Your task to perform on an android device: Open settings Image 0: 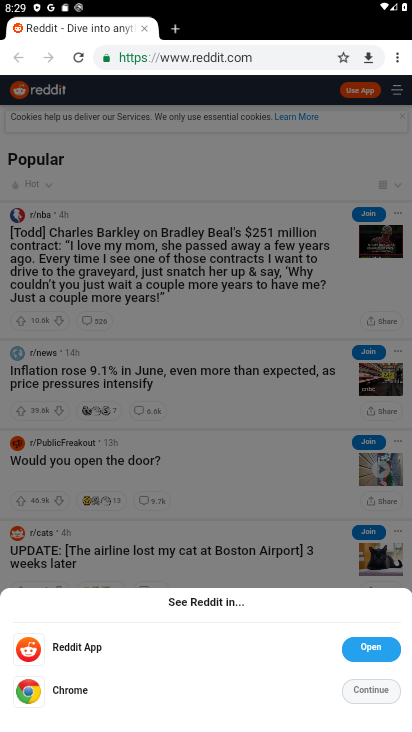
Step 0: press home button
Your task to perform on an android device: Open settings Image 1: 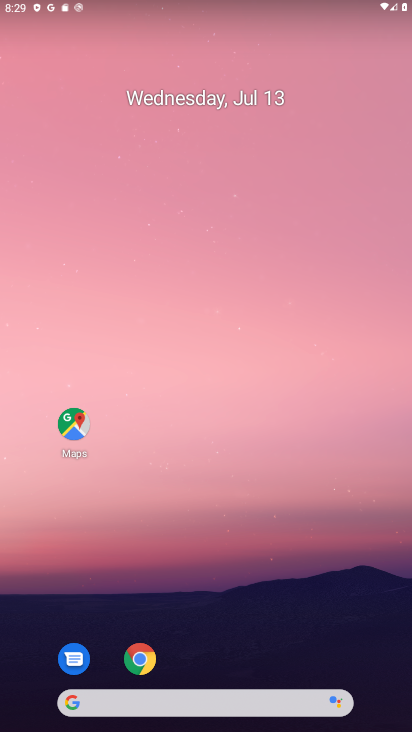
Step 1: drag from (286, 662) to (282, 234)
Your task to perform on an android device: Open settings Image 2: 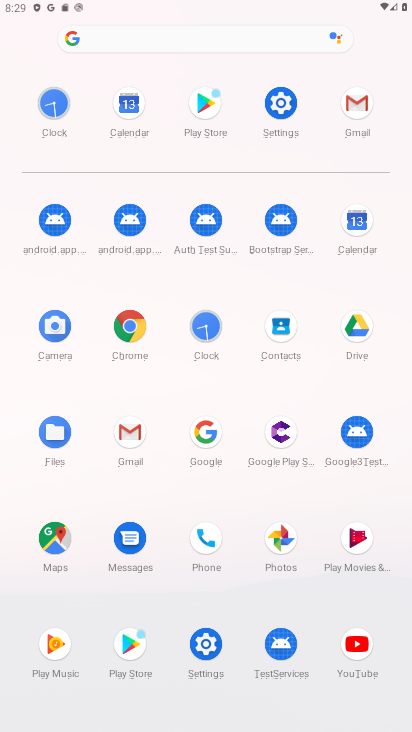
Step 2: click (270, 110)
Your task to perform on an android device: Open settings Image 3: 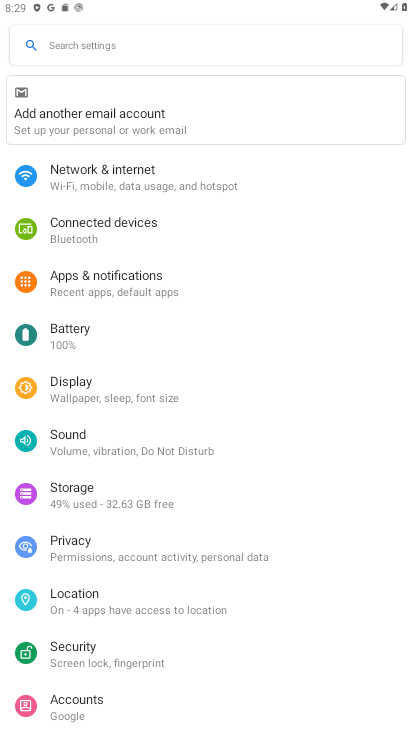
Step 3: task complete